Your task to perform on an android device: Open Google Maps Image 0: 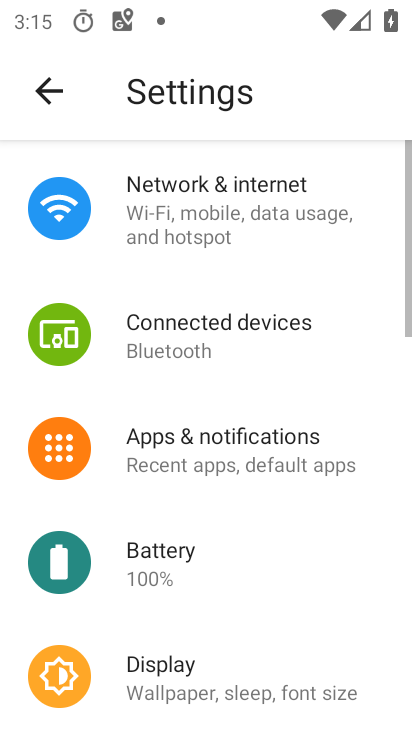
Step 0: press home button
Your task to perform on an android device: Open Google Maps Image 1: 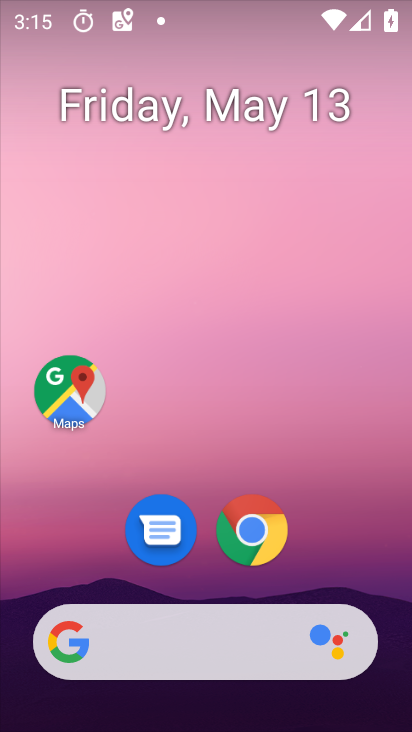
Step 1: click (60, 372)
Your task to perform on an android device: Open Google Maps Image 2: 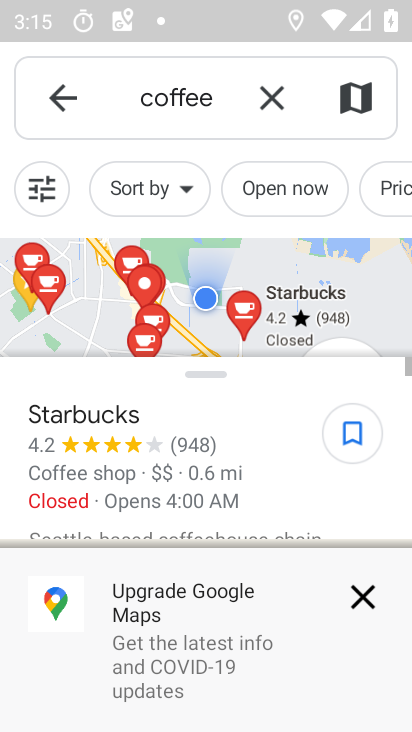
Step 2: task complete